Your task to perform on an android device: check out phone information Image 0: 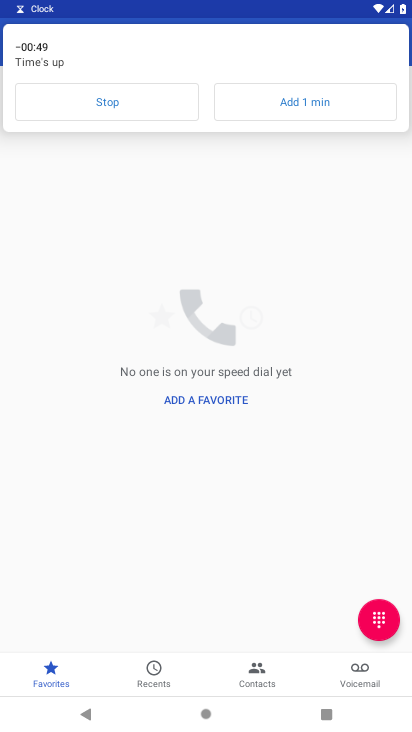
Step 0: press home button
Your task to perform on an android device: check out phone information Image 1: 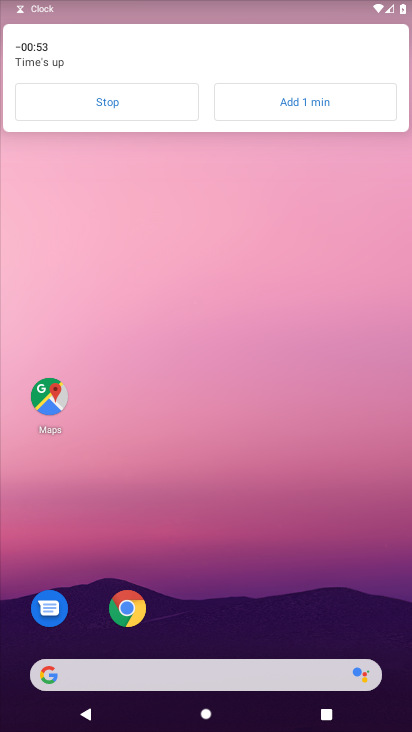
Step 1: click (100, 111)
Your task to perform on an android device: check out phone information Image 2: 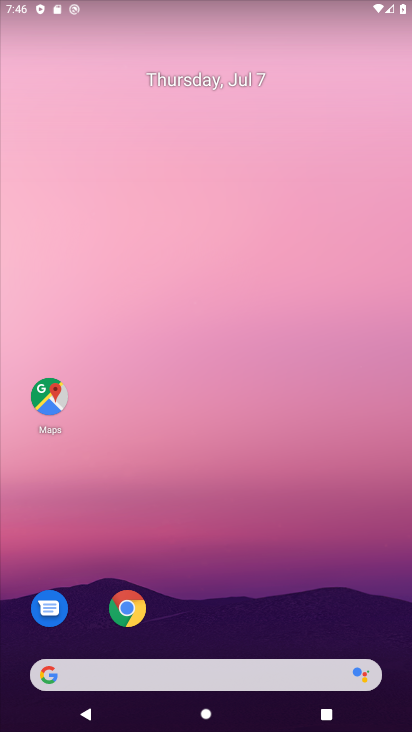
Step 2: drag from (210, 618) to (210, 75)
Your task to perform on an android device: check out phone information Image 3: 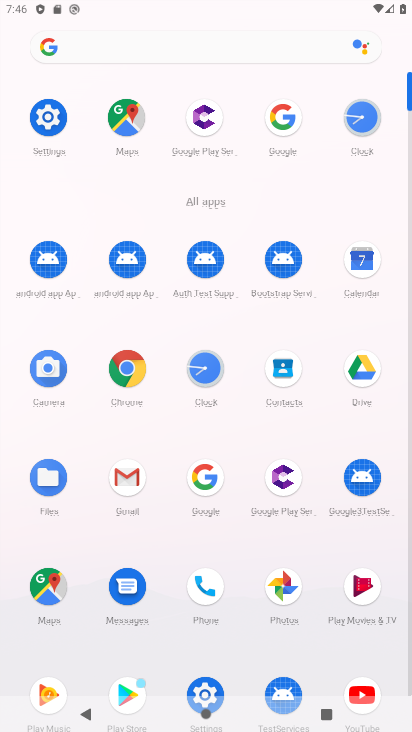
Step 3: click (46, 121)
Your task to perform on an android device: check out phone information Image 4: 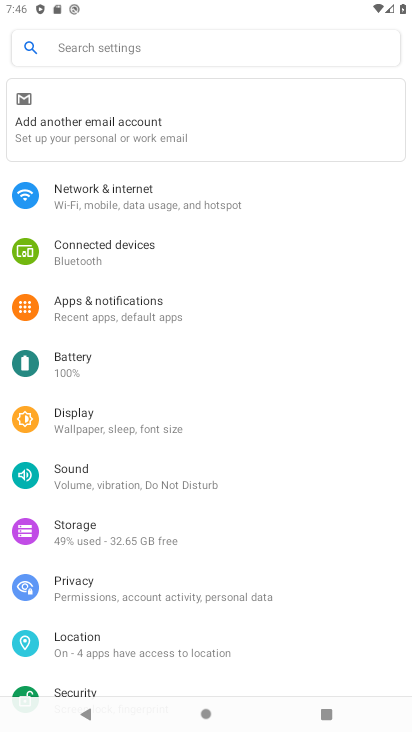
Step 4: drag from (191, 590) to (219, 164)
Your task to perform on an android device: check out phone information Image 5: 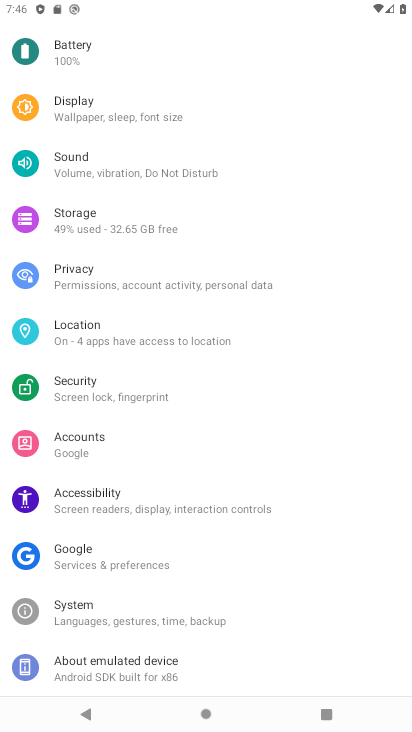
Step 5: drag from (222, 562) to (238, 273)
Your task to perform on an android device: check out phone information Image 6: 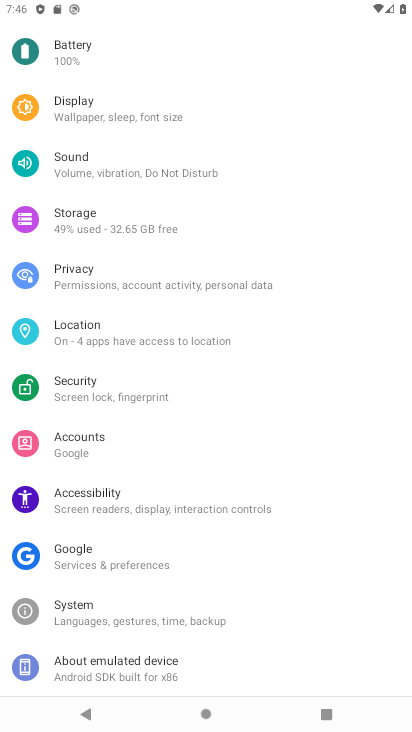
Step 6: click (114, 659)
Your task to perform on an android device: check out phone information Image 7: 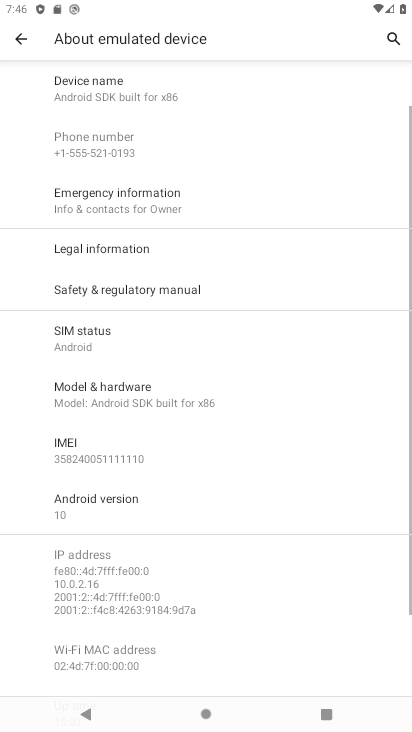
Step 7: task complete